Your task to perform on an android device: delete the emails in spam in the gmail app Image 0: 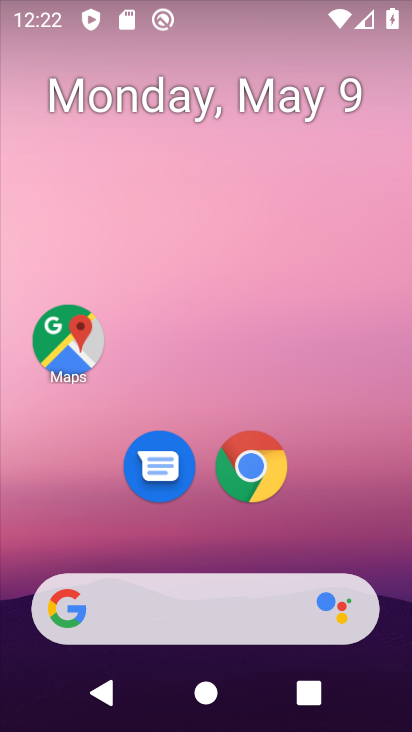
Step 0: drag from (363, 512) to (257, 139)
Your task to perform on an android device: delete the emails in spam in the gmail app Image 1: 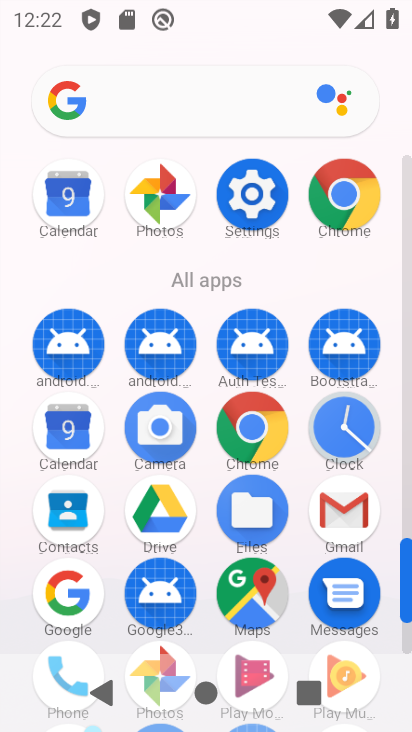
Step 1: click (354, 527)
Your task to perform on an android device: delete the emails in spam in the gmail app Image 2: 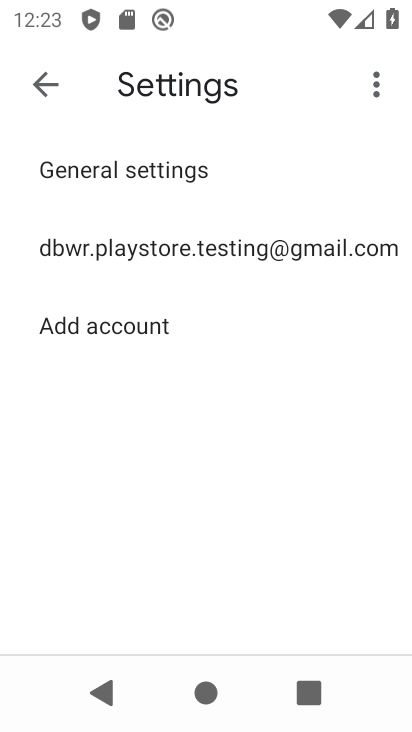
Step 2: click (36, 85)
Your task to perform on an android device: delete the emails in spam in the gmail app Image 3: 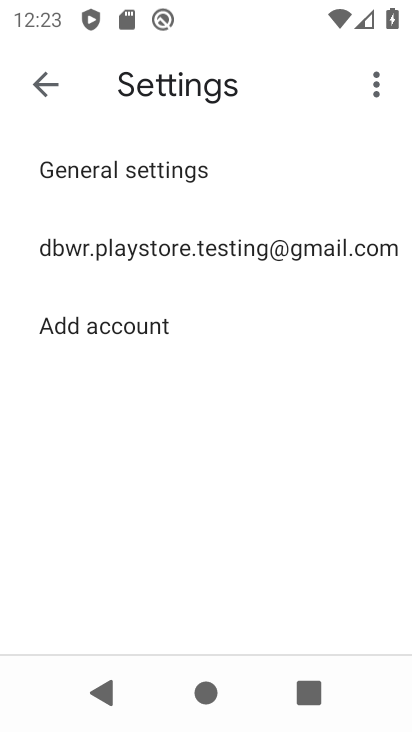
Step 3: click (36, 85)
Your task to perform on an android device: delete the emails in spam in the gmail app Image 4: 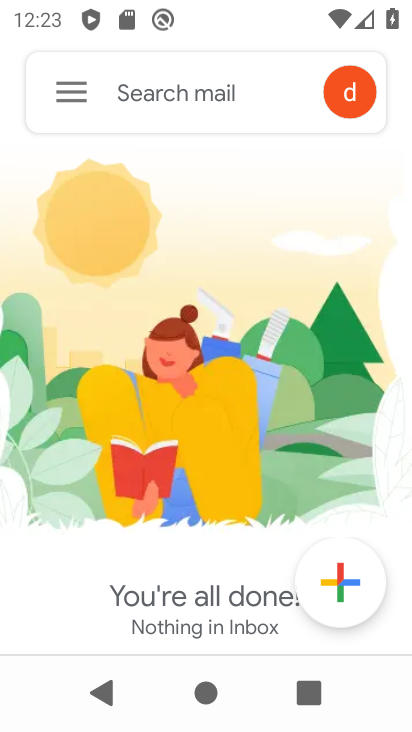
Step 4: click (66, 93)
Your task to perform on an android device: delete the emails in spam in the gmail app Image 5: 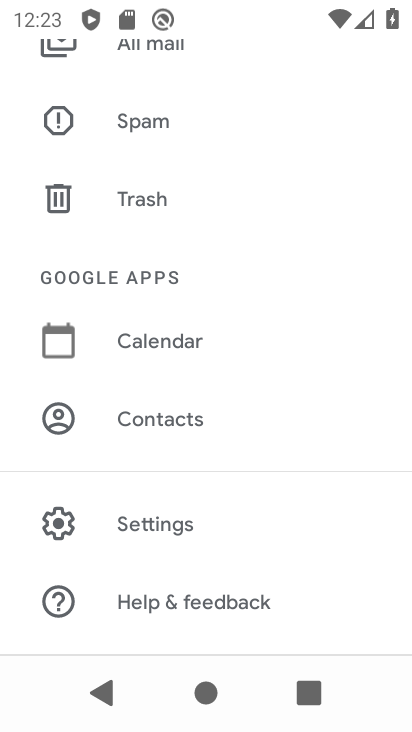
Step 5: click (177, 132)
Your task to perform on an android device: delete the emails in spam in the gmail app Image 6: 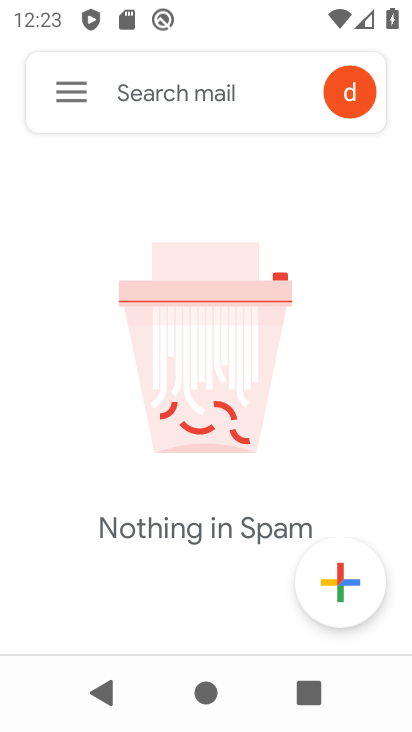
Step 6: task complete